Your task to perform on an android device: Empty the shopping cart on walmart. Search for usb-b on walmart, select the first entry, and add it to the cart. Image 0: 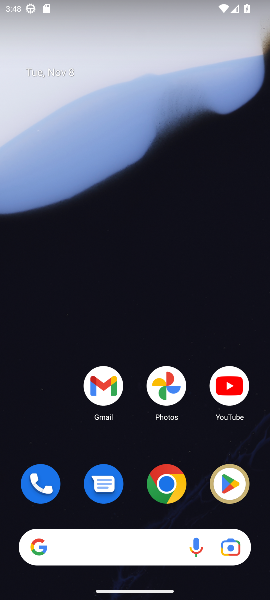
Step 0: click (174, 482)
Your task to perform on an android device: Empty the shopping cart on walmart. Search for usb-b on walmart, select the first entry, and add it to the cart. Image 1: 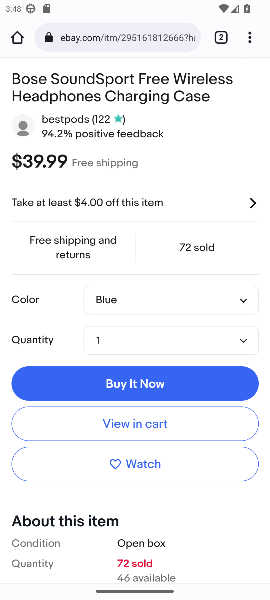
Step 1: click (125, 38)
Your task to perform on an android device: Empty the shopping cart on walmart. Search for usb-b on walmart, select the first entry, and add it to the cart. Image 2: 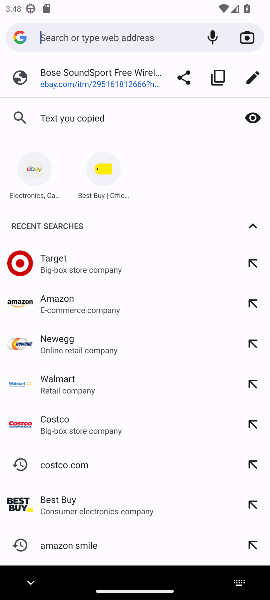
Step 2: click (48, 378)
Your task to perform on an android device: Empty the shopping cart on walmart. Search for usb-b on walmart, select the first entry, and add it to the cart. Image 3: 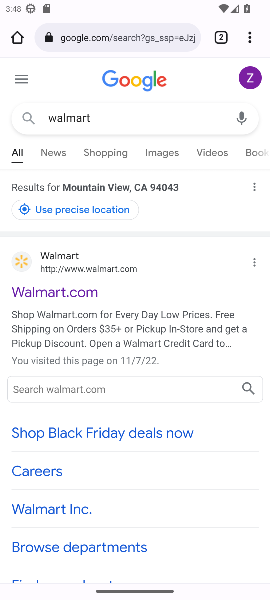
Step 3: click (44, 295)
Your task to perform on an android device: Empty the shopping cart on walmart. Search for usb-b on walmart, select the first entry, and add it to the cart. Image 4: 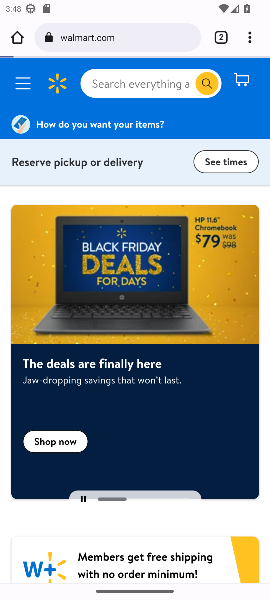
Step 4: click (45, 292)
Your task to perform on an android device: Empty the shopping cart on walmart. Search for usb-b on walmart, select the first entry, and add it to the cart. Image 5: 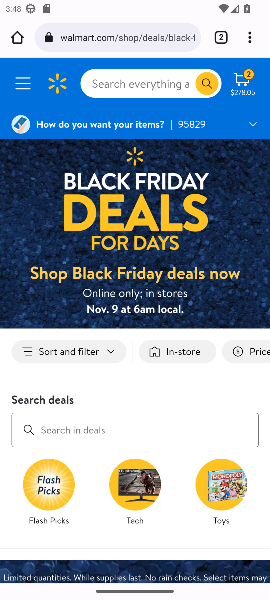
Step 5: click (243, 86)
Your task to perform on an android device: Empty the shopping cart on walmart. Search for usb-b on walmart, select the first entry, and add it to the cart. Image 6: 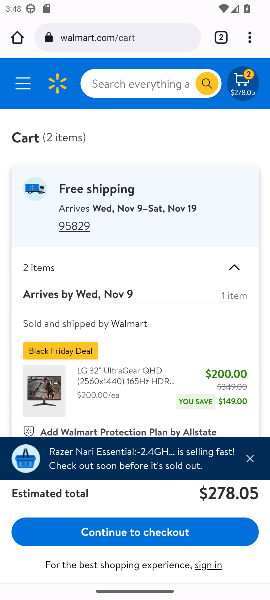
Step 6: click (258, 462)
Your task to perform on an android device: Empty the shopping cart on walmart. Search for usb-b on walmart, select the first entry, and add it to the cart. Image 7: 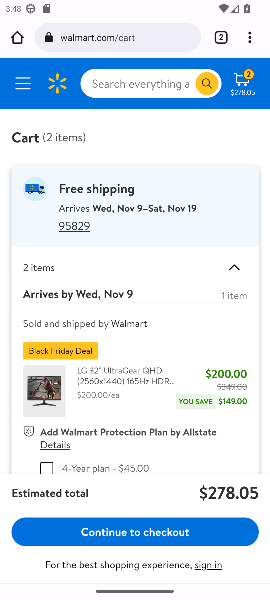
Step 7: drag from (132, 343) to (169, 13)
Your task to perform on an android device: Empty the shopping cart on walmart. Search for usb-b on walmart, select the first entry, and add it to the cart. Image 8: 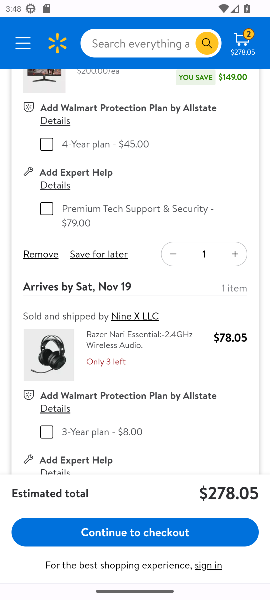
Step 8: click (47, 257)
Your task to perform on an android device: Empty the shopping cart on walmart. Search for usb-b on walmart, select the first entry, and add it to the cart. Image 9: 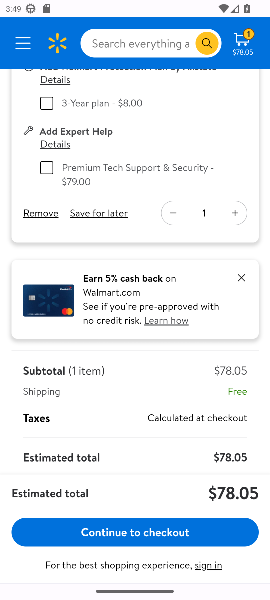
Step 9: click (41, 214)
Your task to perform on an android device: Empty the shopping cart on walmart. Search for usb-b on walmart, select the first entry, and add it to the cart. Image 10: 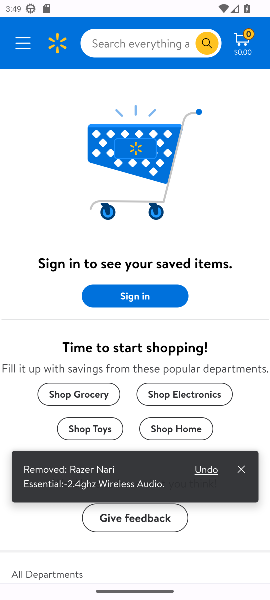
Step 10: click (106, 28)
Your task to perform on an android device: Empty the shopping cart on walmart. Search for usb-b on walmart, select the first entry, and add it to the cart. Image 11: 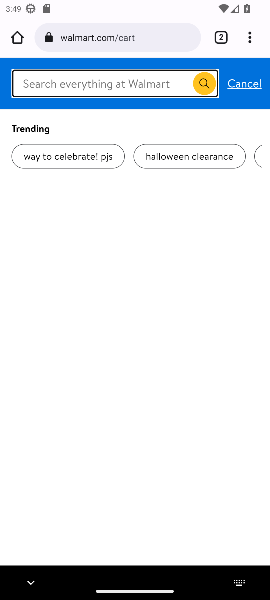
Step 11: type "usb-b"
Your task to perform on an android device: Empty the shopping cart on walmart. Search for usb-b on walmart, select the first entry, and add it to the cart. Image 12: 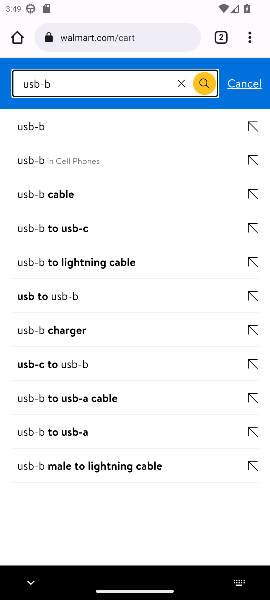
Step 12: click (209, 80)
Your task to perform on an android device: Empty the shopping cart on walmart. Search for usb-b on walmart, select the first entry, and add it to the cart. Image 13: 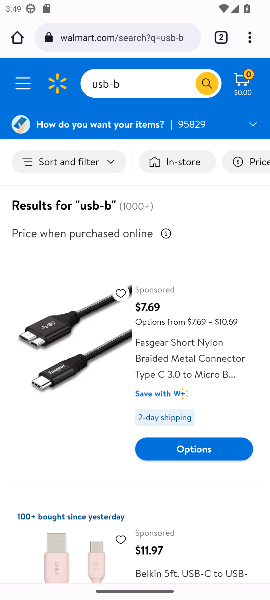
Step 13: task complete